Your task to perform on an android device: Open settings Image 0: 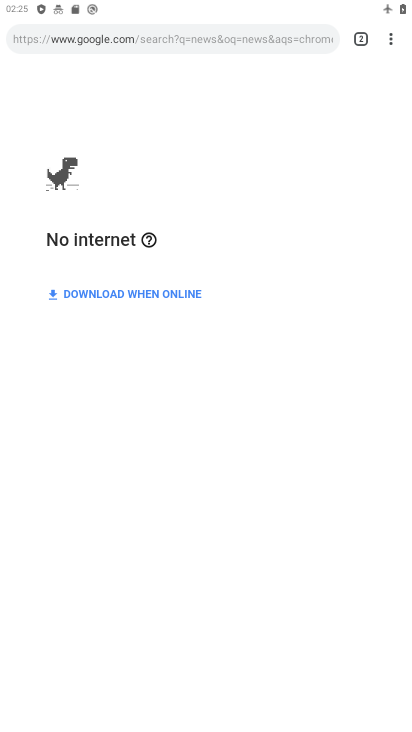
Step 0: press home button
Your task to perform on an android device: Open settings Image 1: 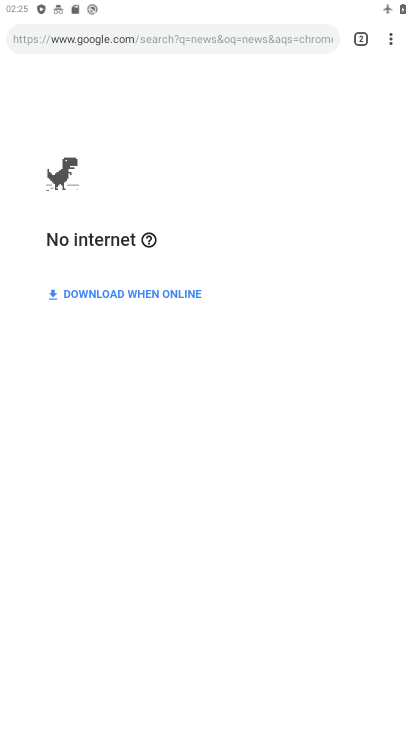
Step 1: press home button
Your task to perform on an android device: Open settings Image 2: 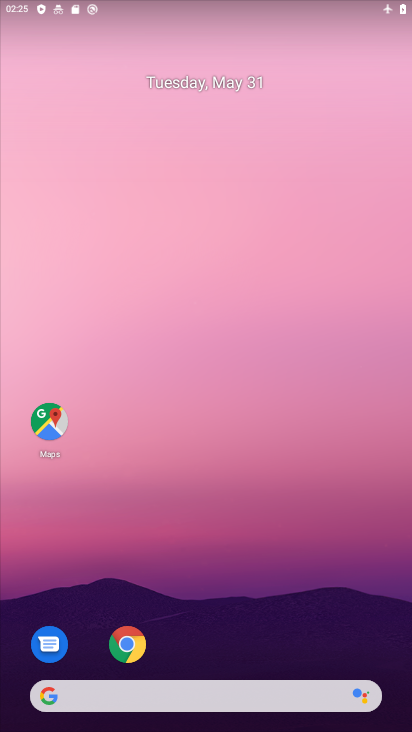
Step 2: drag from (276, 647) to (230, 225)
Your task to perform on an android device: Open settings Image 3: 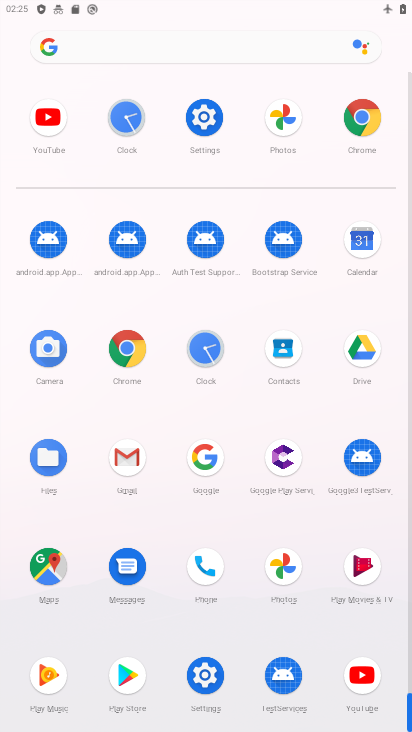
Step 3: click (208, 111)
Your task to perform on an android device: Open settings Image 4: 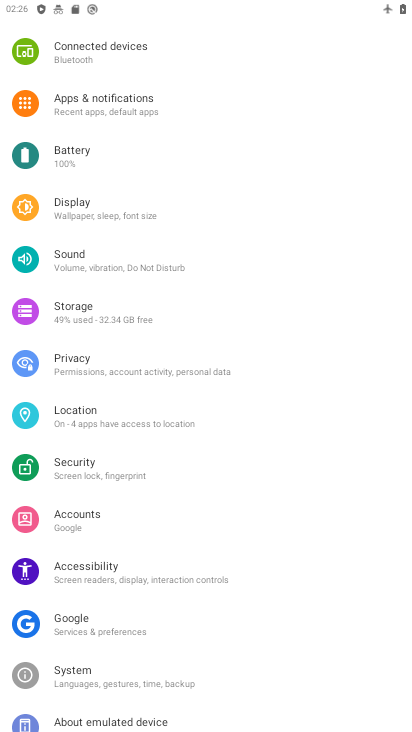
Step 4: task complete